Your task to perform on an android device: What's on my calendar tomorrow? Image 0: 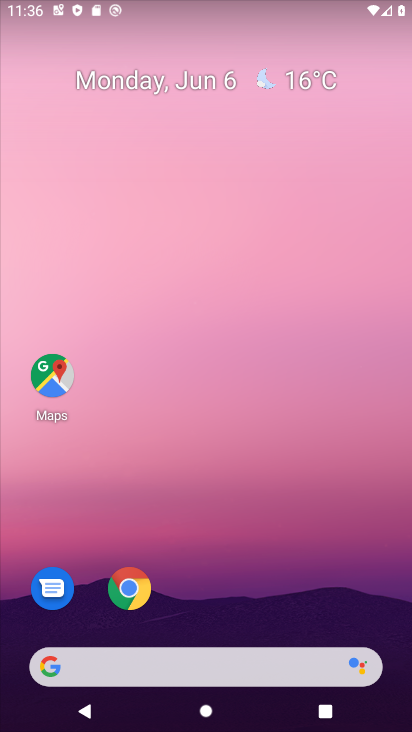
Step 0: drag from (199, 607) to (100, 45)
Your task to perform on an android device: What's on my calendar tomorrow? Image 1: 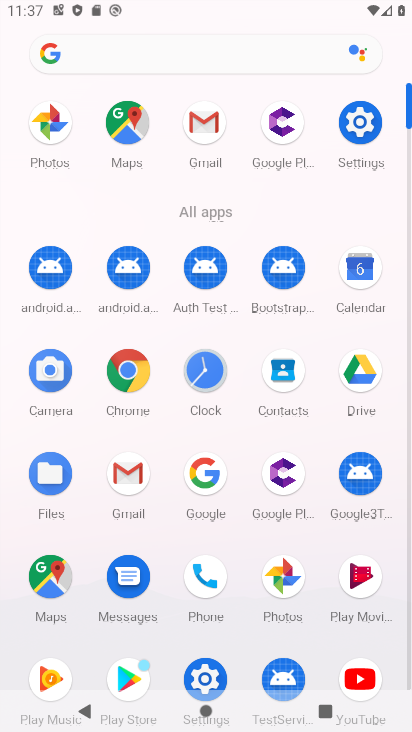
Step 1: click (364, 286)
Your task to perform on an android device: What's on my calendar tomorrow? Image 2: 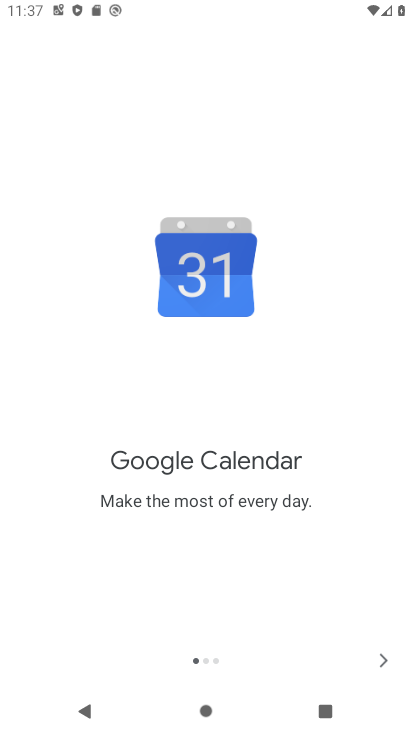
Step 2: click (385, 659)
Your task to perform on an android device: What's on my calendar tomorrow? Image 3: 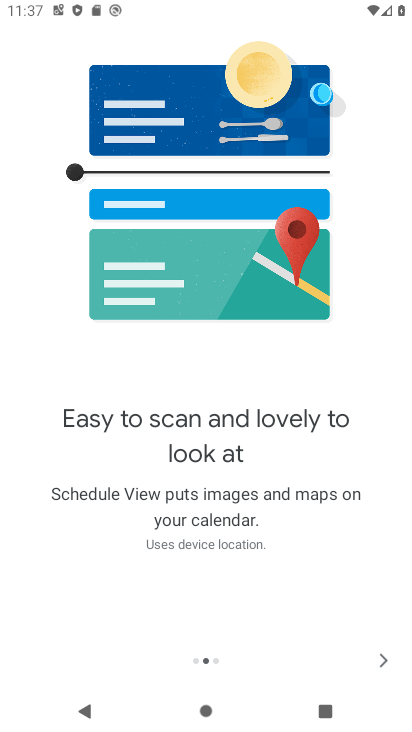
Step 3: click (385, 659)
Your task to perform on an android device: What's on my calendar tomorrow? Image 4: 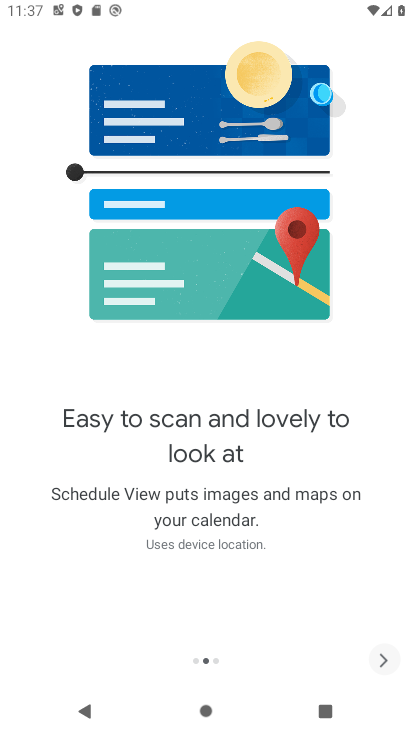
Step 4: click (385, 659)
Your task to perform on an android device: What's on my calendar tomorrow? Image 5: 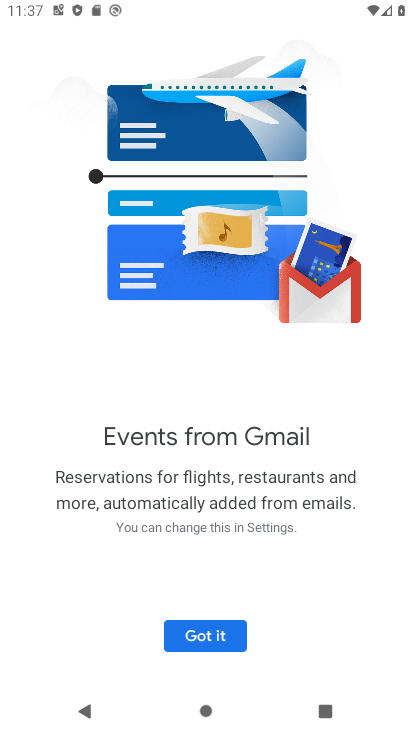
Step 5: click (179, 665)
Your task to perform on an android device: What's on my calendar tomorrow? Image 6: 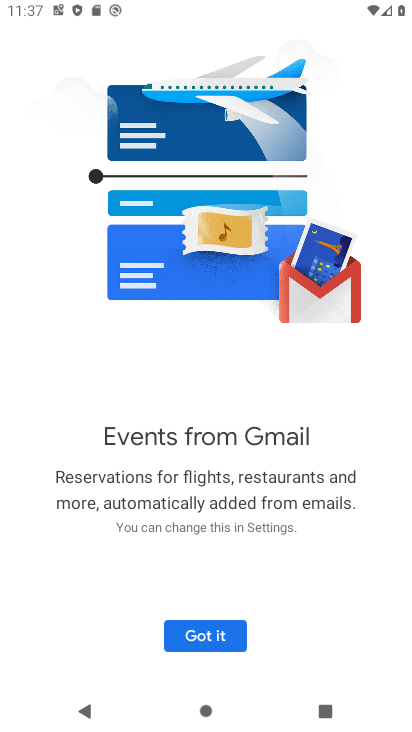
Step 6: click (206, 641)
Your task to perform on an android device: What's on my calendar tomorrow? Image 7: 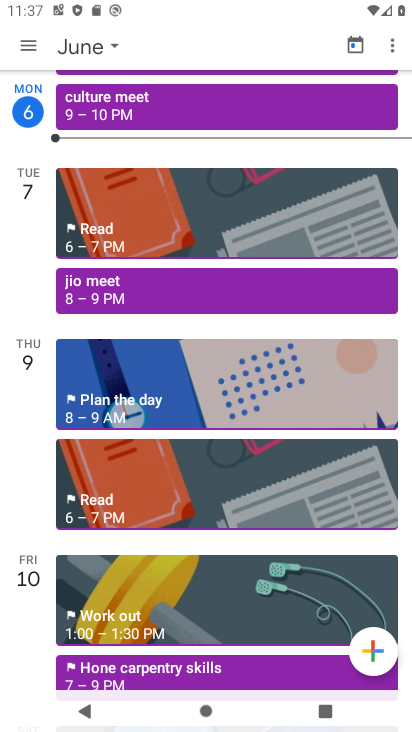
Step 7: click (29, 199)
Your task to perform on an android device: What's on my calendar tomorrow? Image 8: 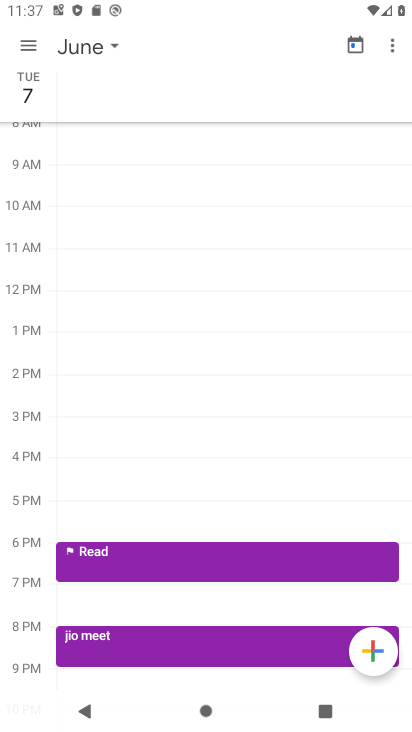
Step 8: task complete